Your task to perform on an android device: turn notification dots off Image 0: 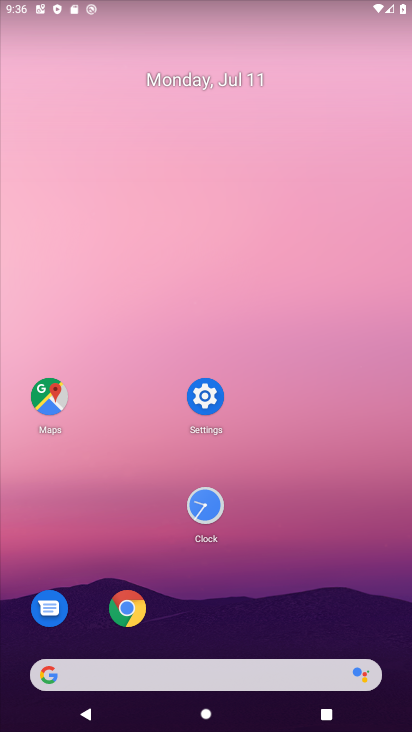
Step 0: click (195, 389)
Your task to perform on an android device: turn notification dots off Image 1: 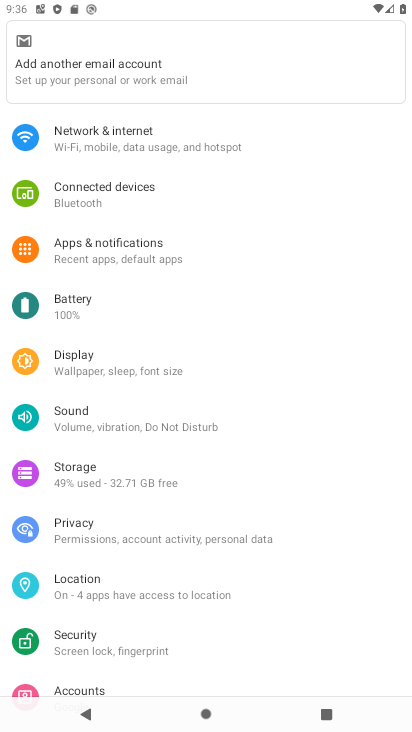
Step 1: click (97, 252)
Your task to perform on an android device: turn notification dots off Image 2: 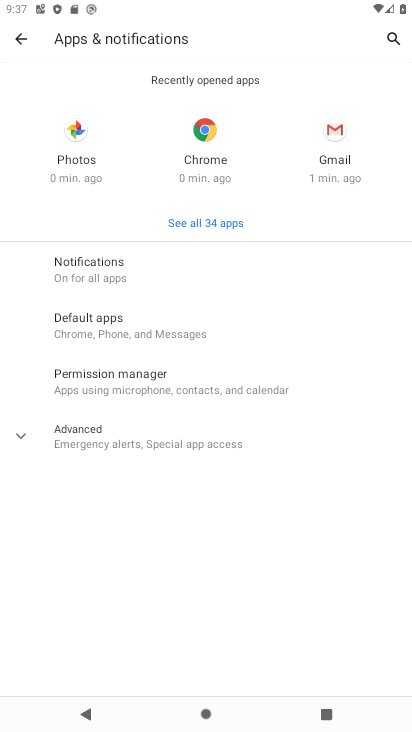
Step 2: click (24, 441)
Your task to perform on an android device: turn notification dots off Image 3: 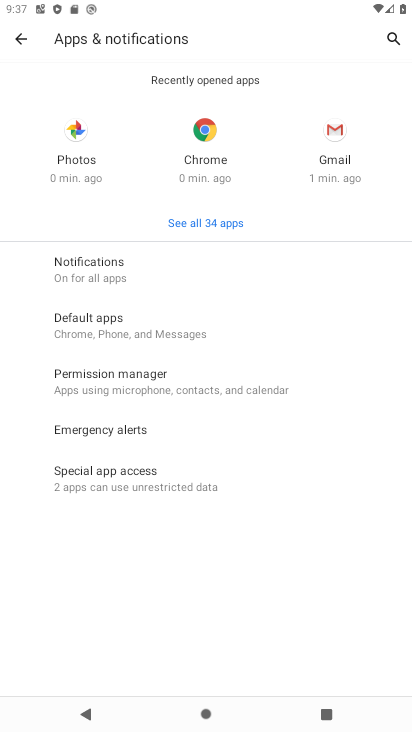
Step 3: click (125, 268)
Your task to perform on an android device: turn notification dots off Image 4: 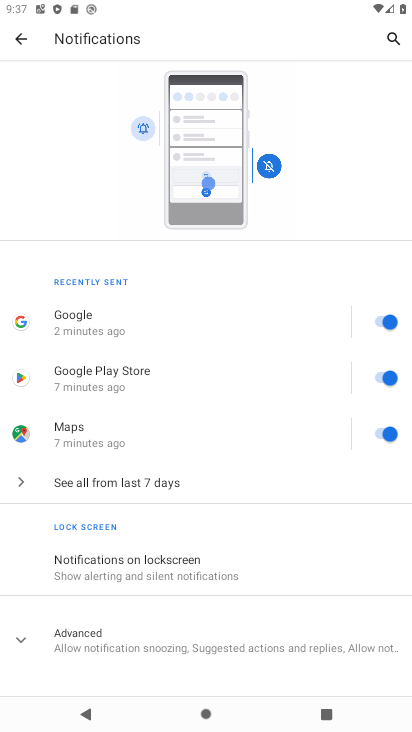
Step 4: click (15, 637)
Your task to perform on an android device: turn notification dots off Image 5: 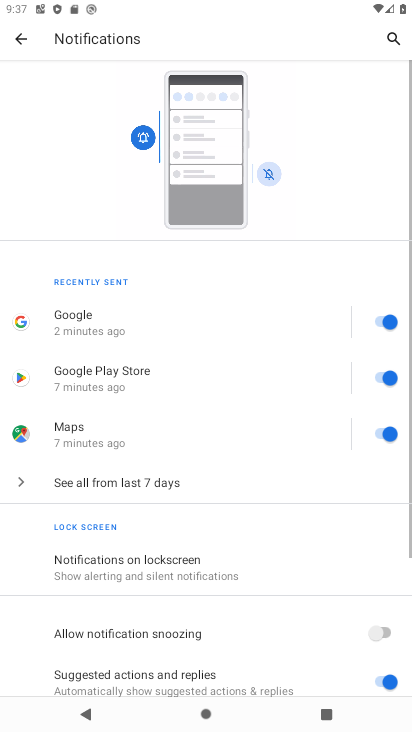
Step 5: drag from (309, 661) to (343, 225)
Your task to perform on an android device: turn notification dots off Image 6: 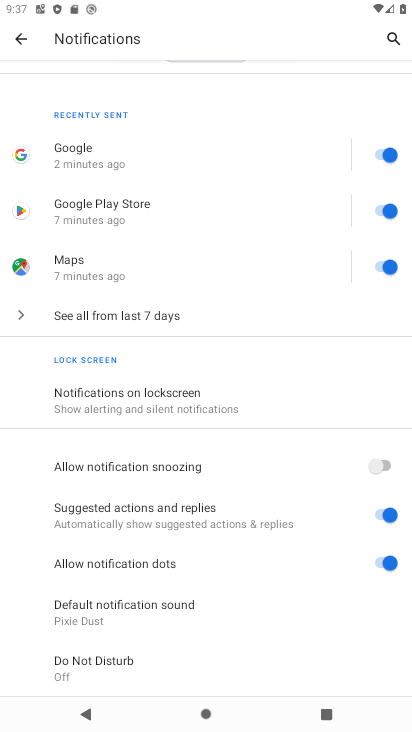
Step 6: click (385, 566)
Your task to perform on an android device: turn notification dots off Image 7: 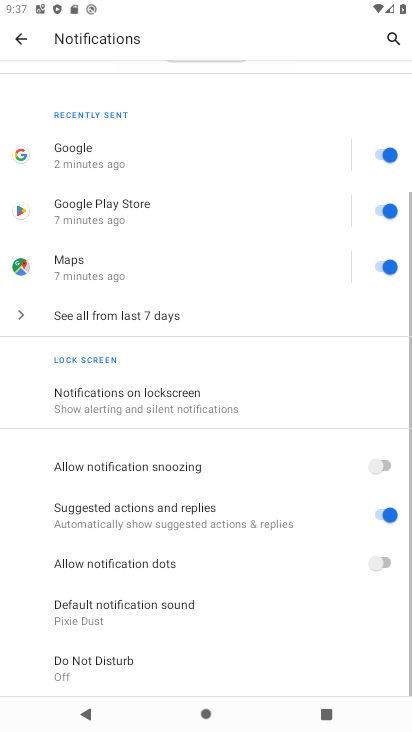
Step 7: task complete